Your task to perform on an android device: turn notification dots off Image 0: 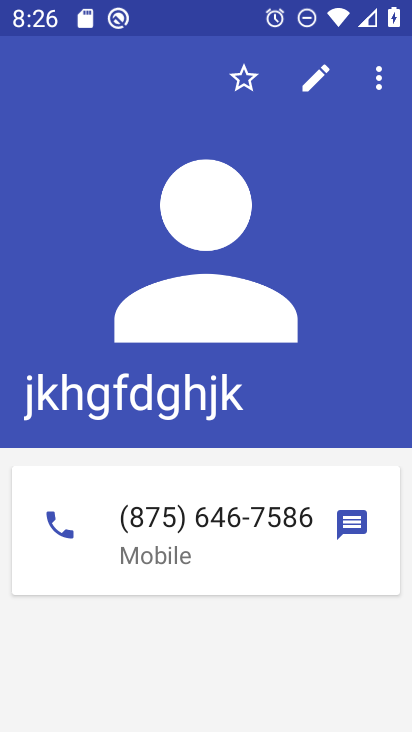
Step 0: press home button
Your task to perform on an android device: turn notification dots off Image 1: 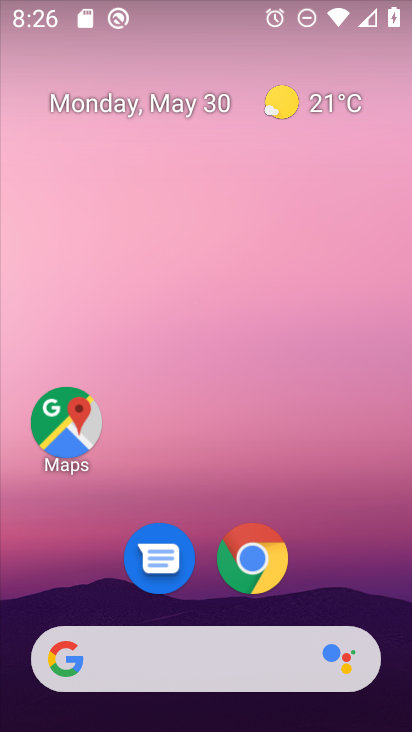
Step 1: drag from (203, 135) to (194, 54)
Your task to perform on an android device: turn notification dots off Image 2: 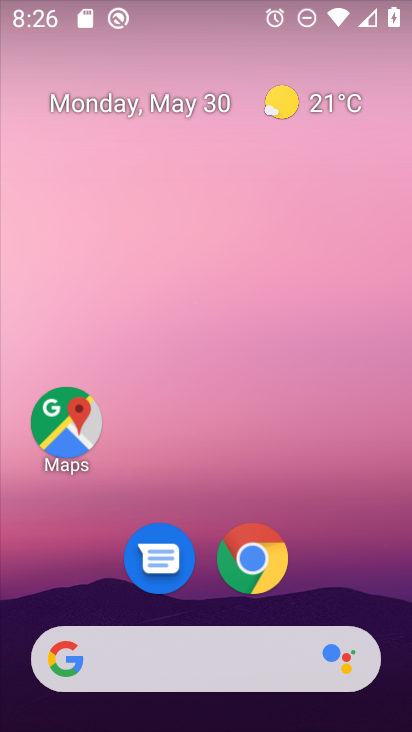
Step 2: drag from (206, 450) to (225, 1)
Your task to perform on an android device: turn notification dots off Image 3: 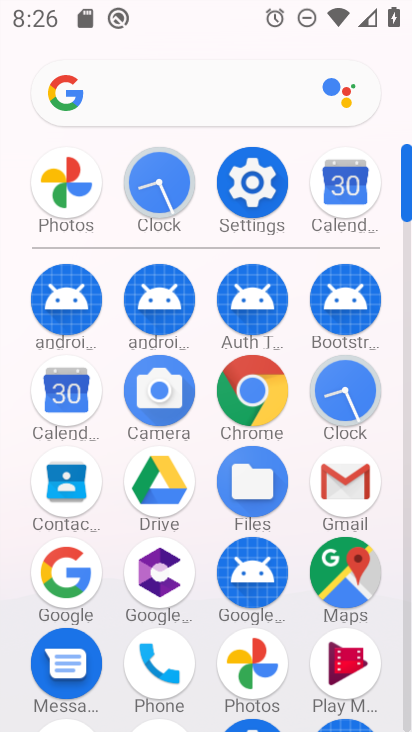
Step 3: click (247, 188)
Your task to perform on an android device: turn notification dots off Image 4: 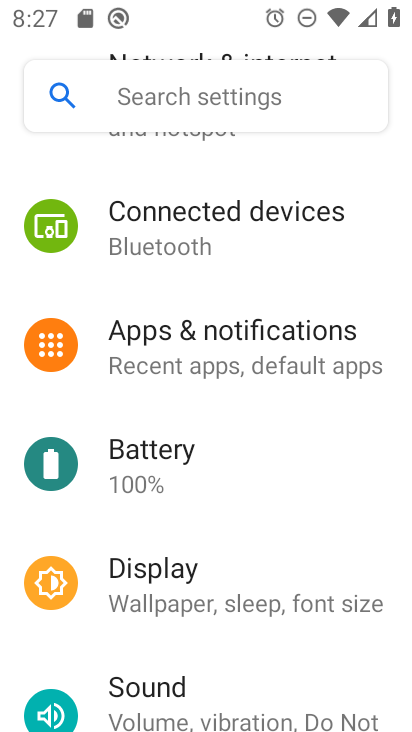
Step 4: click (240, 326)
Your task to perform on an android device: turn notification dots off Image 5: 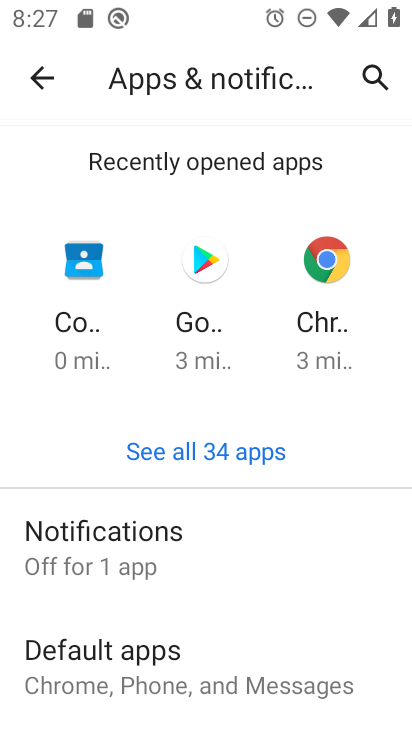
Step 5: click (99, 525)
Your task to perform on an android device: turn notification dots off Image 6: 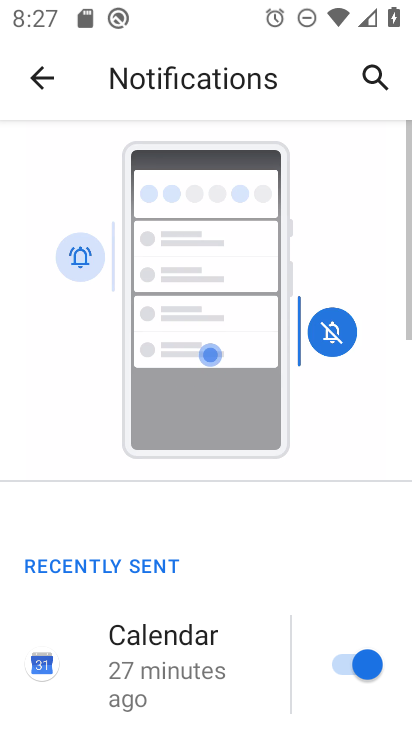
Step 6: drag from (262, 599) to (180, 67)
Your task to perform on an android device: turn notification dots off Image 7: 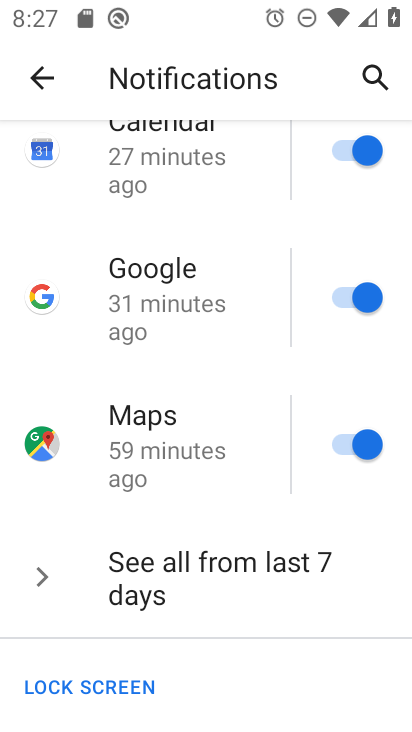
Step 7: drag from (272, 639) to (214, 349)
Your task to perform on an android device: turn notification dots off Image 8: 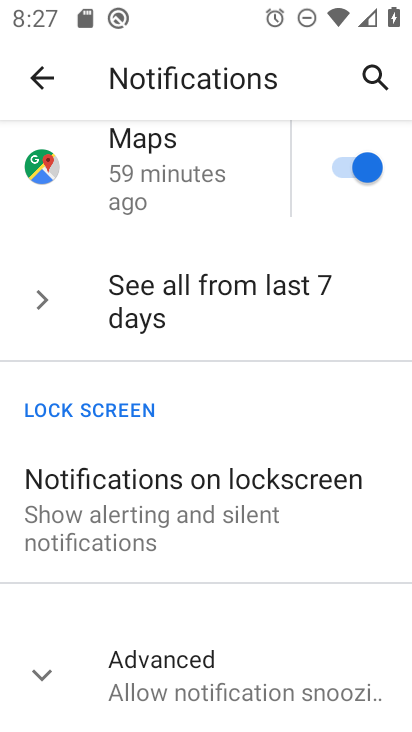
Step 8: drag from (272, 556) to (227, 233)
Your task to perform on an android device: turn notification dots off Image 9: 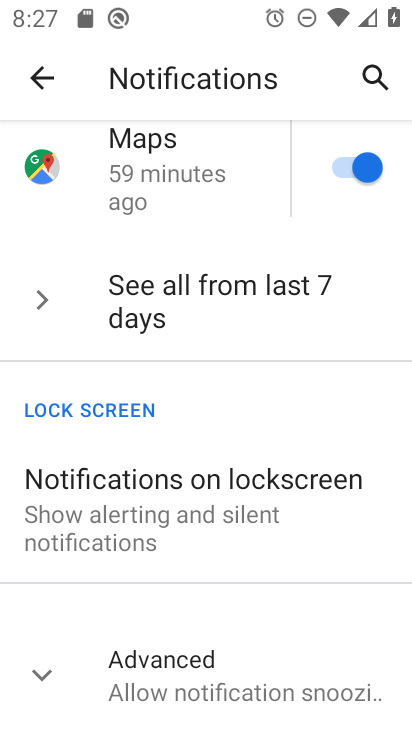
Step 9: drag from (217, 605) to (150, 237)
Your task to perform on an android device: turn notification dots off Image 10: 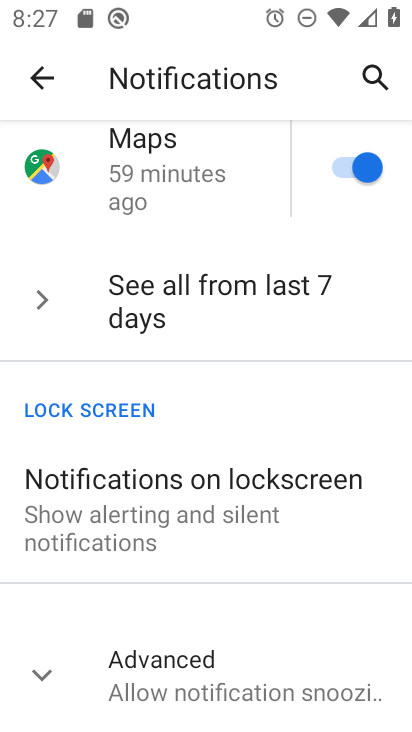
Step 10: drag from (152, 612) to (137, 355)
Your task to perform on an android device: turn notification dots off Image 11: 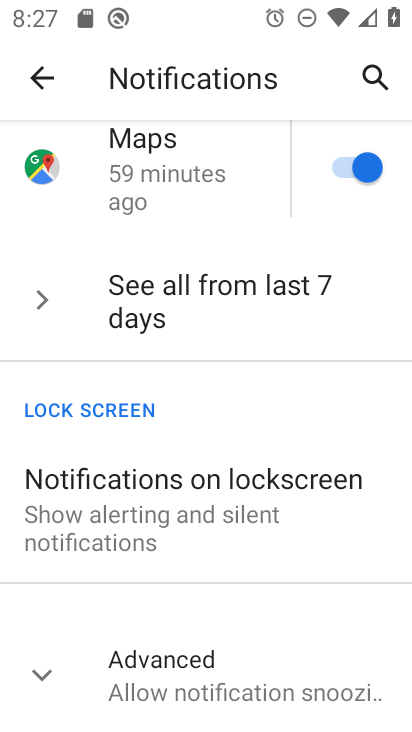
Step 11: drag from (260, 592) to (184, 277)
Your task to perform on an android device: turn notification dots off Image 12: 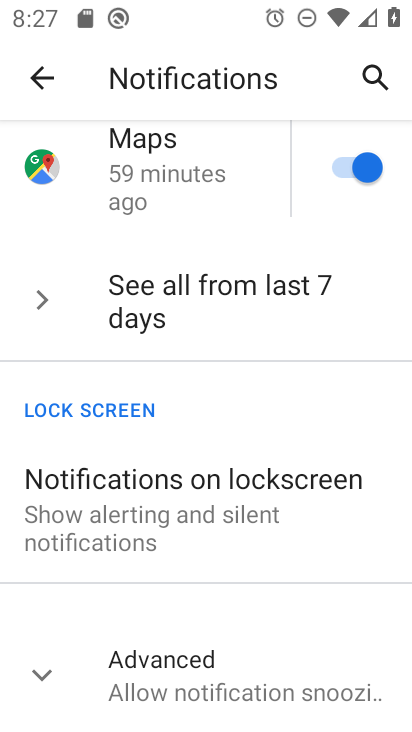
Step 12: drag from (243, 617) to (187, 202)
Your task to perform on an android device: turn notification dots off Image 13: 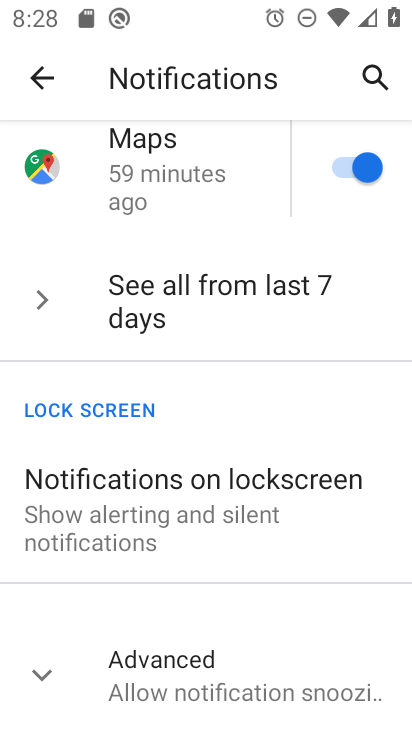
Step 13: click (46, 668)
Your task to perform on an android device: turn notification dots off Image 14: 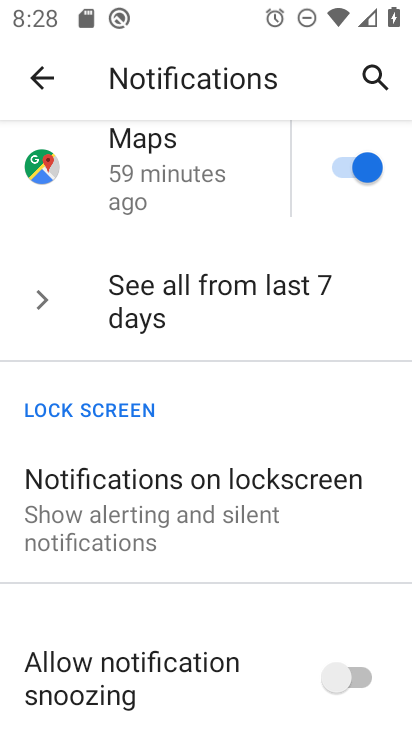
Step 14: drag from (238, 615) to (190, 229)
Your task to perform on an android device: turn notification dots off Image 15: 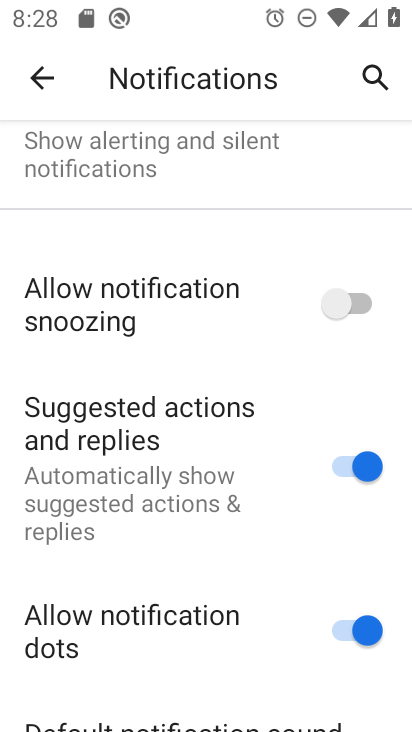
Step 15: click (373, 629)
Your task to perform on an android device: turn notification dots off Image 16: 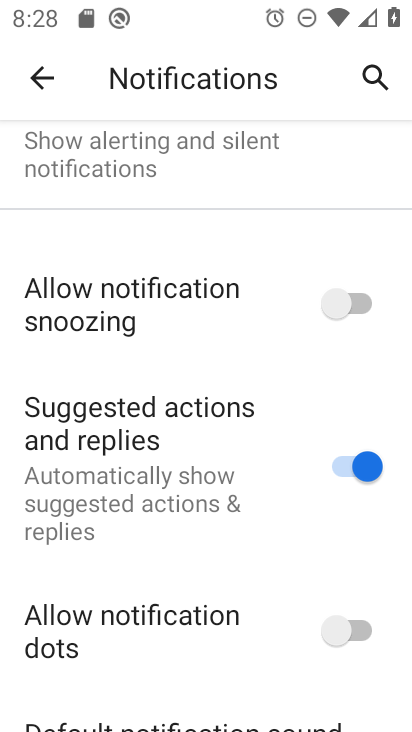
Step 16: task complete